Your task to perform on an android device: Do I have any events tomorrow? Image 0: 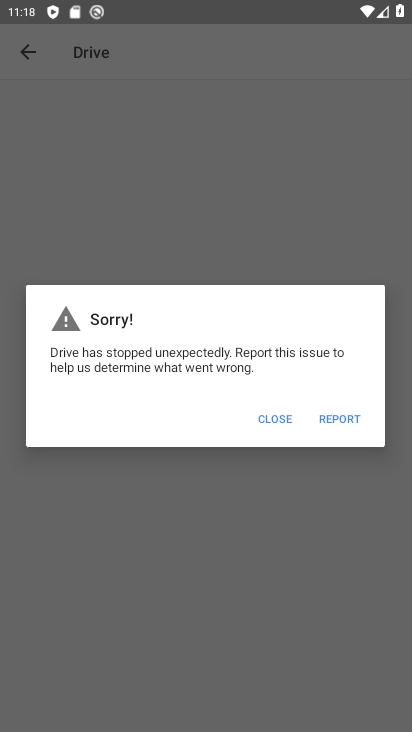
Step 0: press home button
Your task to perform on an android device: Do I have any events tomorrow? Image 1: 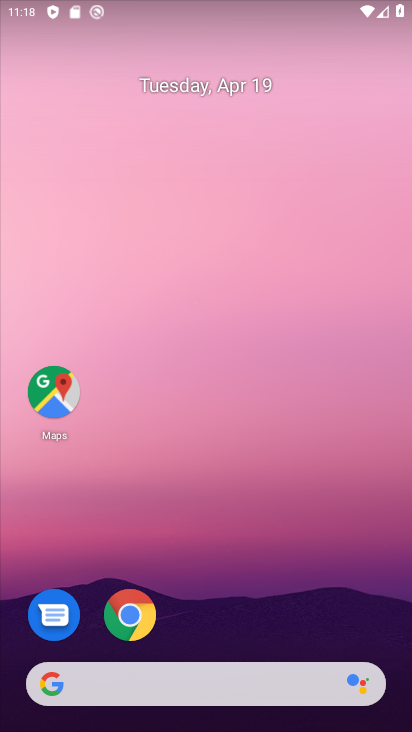
Step 1: drag from (234, 313) to (217, 204)
Your task to perform on an android device: Do I have any events tomorrow? Image 2: 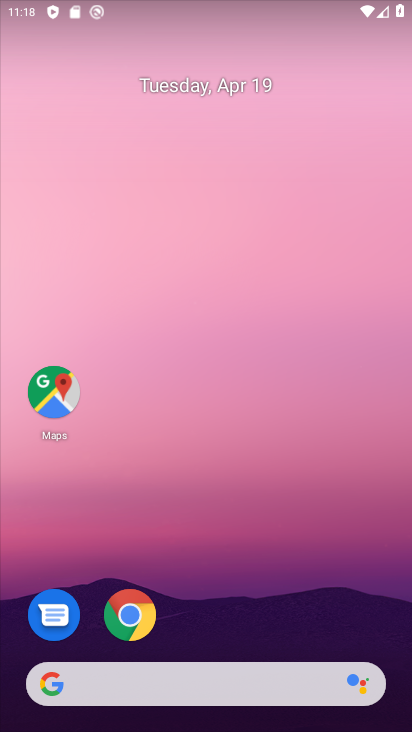
Step 2: drag from (188, 607) to (168, 102)
Your task to perform on an android device: Do I have any events tomorrow? Image 3: 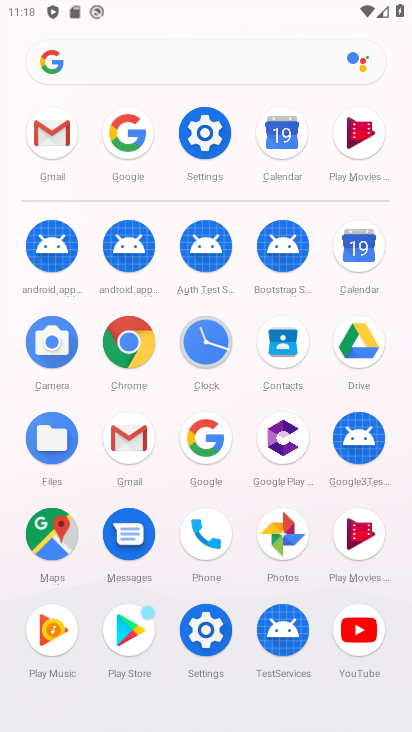
Step 3: drag from (171, 556) to (171, 385)
Your task to perform on an android device: Do I have any events tomorrow? Image 4: 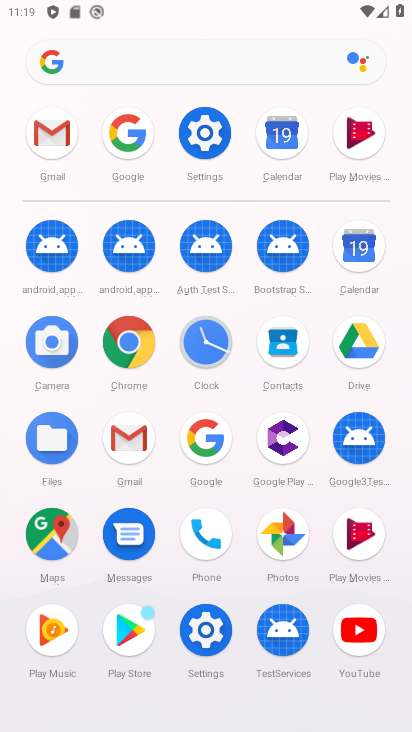
Step 4: drag from (247, 563) to (245, 324)
Your task to perform on an android device: Do I have any events tomorrow? Image 5: 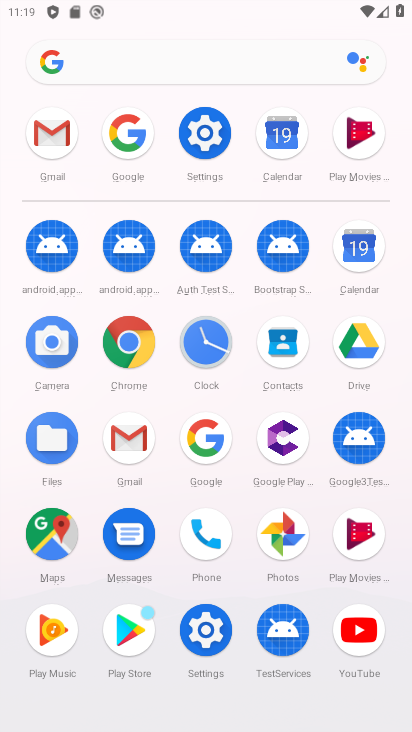
Step 5: click (356, 249)
Your task to perform on an android device: Do I have any events tomorrow? Image 6: 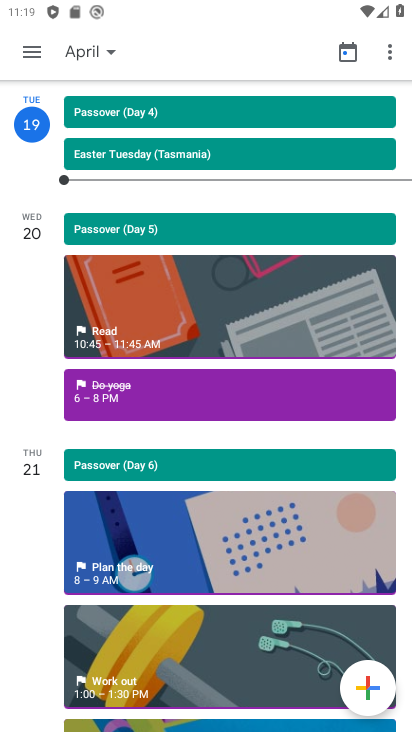
Step 6: click (107, 54)
Your task to perform on an android device: Do I have any events tomorrow? Image 7: 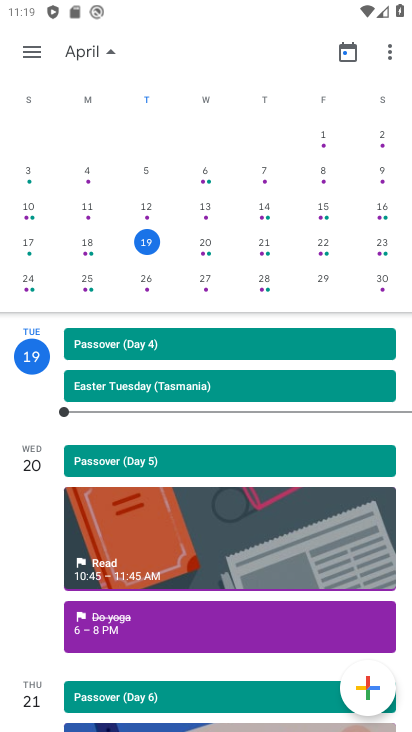
Step 7: drag from (360, 290) to (281, 285)
Your task to perform on an android device: Do I have any events tomorrow? Image 8: 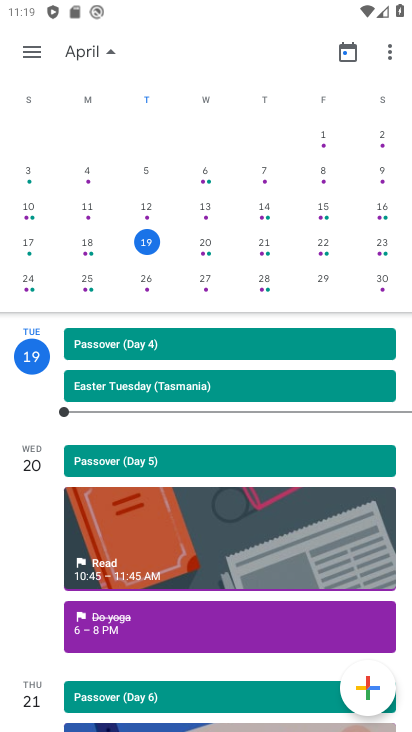
Step 8: click (207, 244)
Your task to perform on an android device: Do I have any events tomorrow? Image 9: 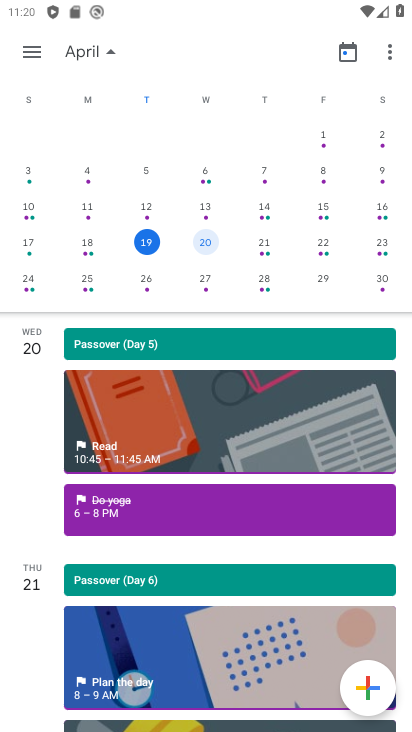
Step 9: task complete